Your task to perform on an android device: Open the map Image 0: 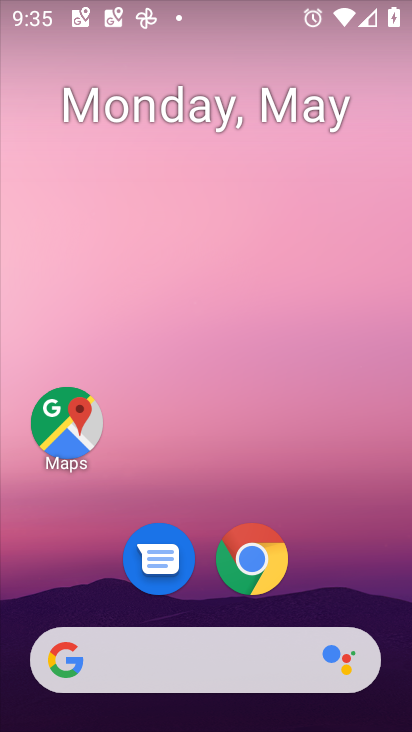
Step 0: drag from (393, 649) to (328, 90)
Your task to perform on an android device: Open the map Image 1: 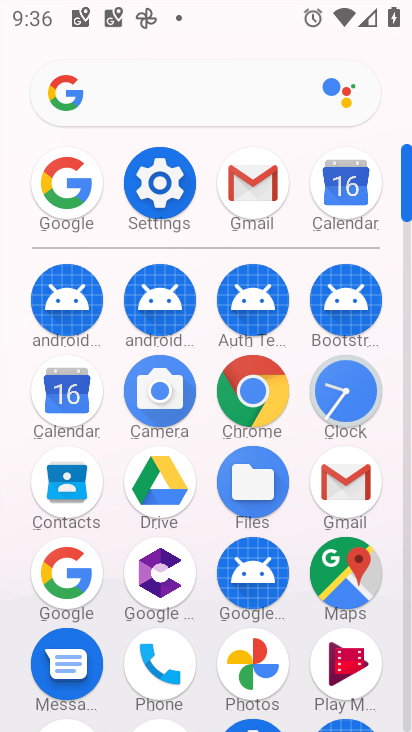
Step 1: click (324, 584)
Your task to perform on an android device: Open the map Image 2: 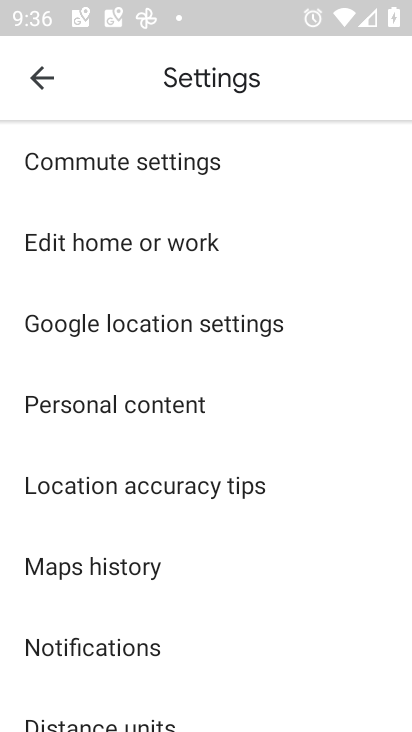
Step 2: task complete